Your task to perform on an android device: Show me productivity apps on the Play Store Image 0: 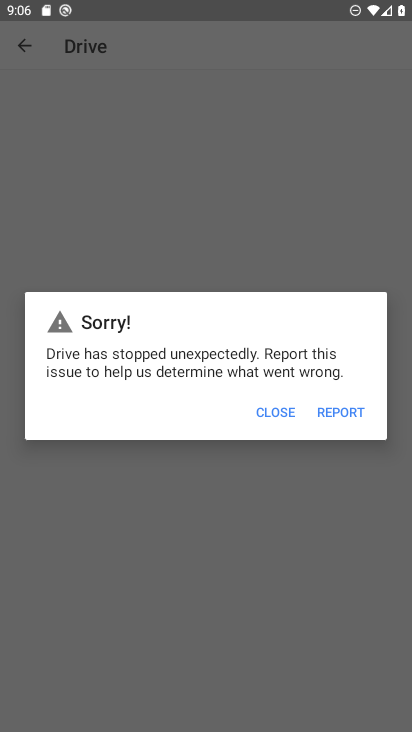
Step 0: press home button
Your task to perform on an android device: Show me productivity apps on the Play Store Image 1: 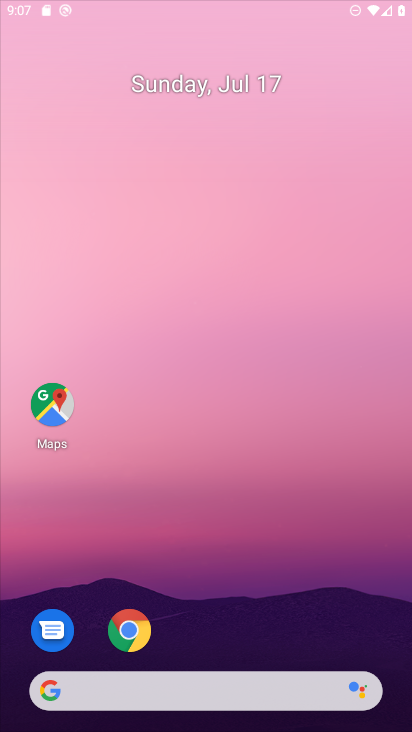
Step 1: click (254, 25)
Your task to perform on an android device: Show me productivity apps on the Play Store Image 2: 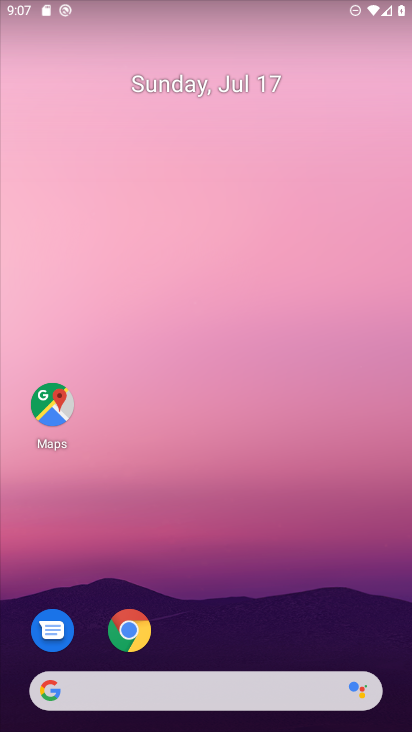
Step 2: drag from (334, 644) to (125, 18)
Your task to perform on an android device: Show me productivity apps on the Play Store Image 3: 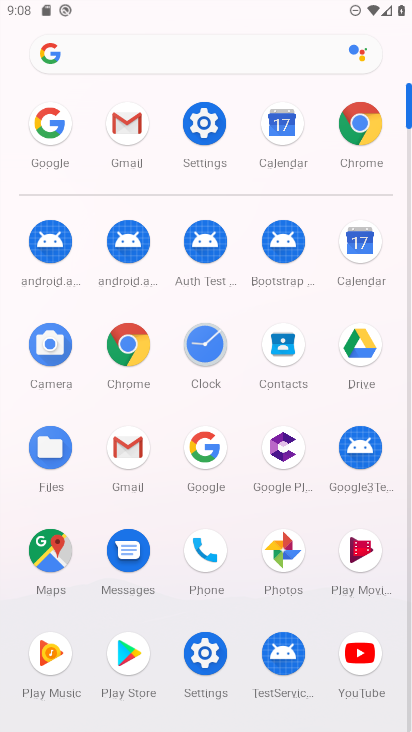
Step 3: click (116, 660)
Your task to perform on an android device: Show me productivity apps on the Play Store Image 4: 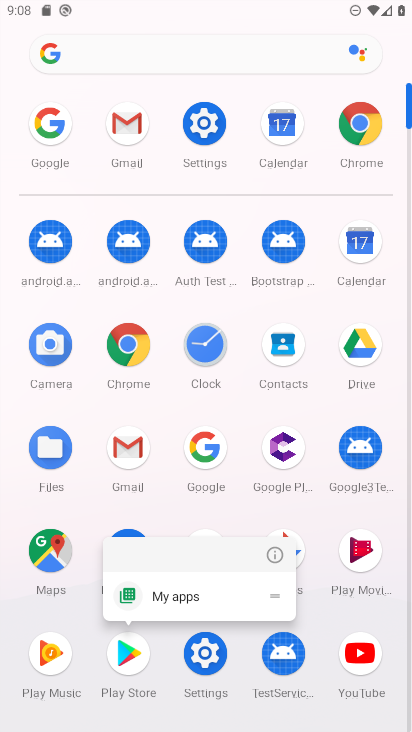
Step 4: click (128, 673)
Your task to perform on an android device: Show me productivity apps on the Play Store Image 5: 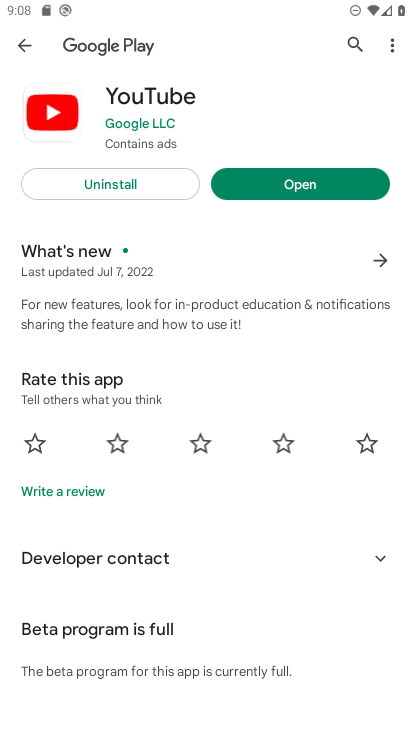
Step 5: press back button
Your task to perform on an android device: Show me productivity apps on the Play Store Image 6: 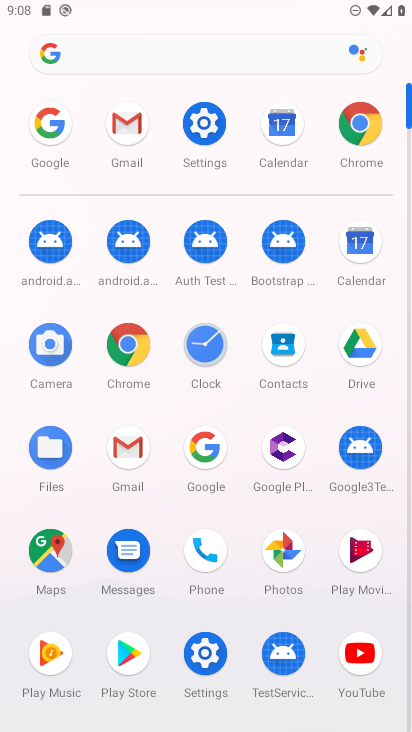
Step 6: click (123, 654)
Your task to perform on an android device: Show me productivity apps on the Play Store Image 7: 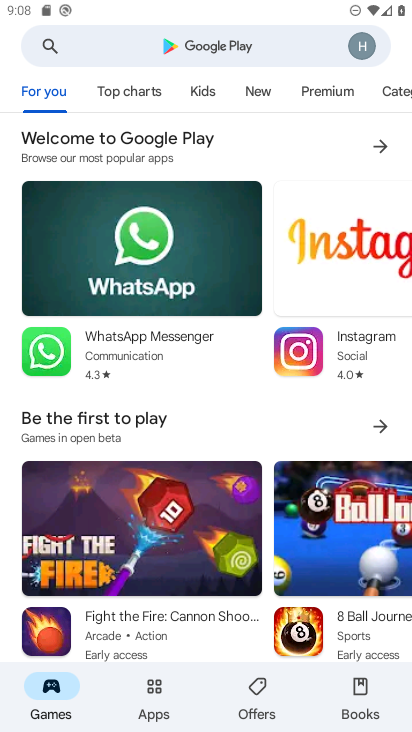
Step 7: task complete